Your task to perform on an android device: toggle airplane mode Image 0: 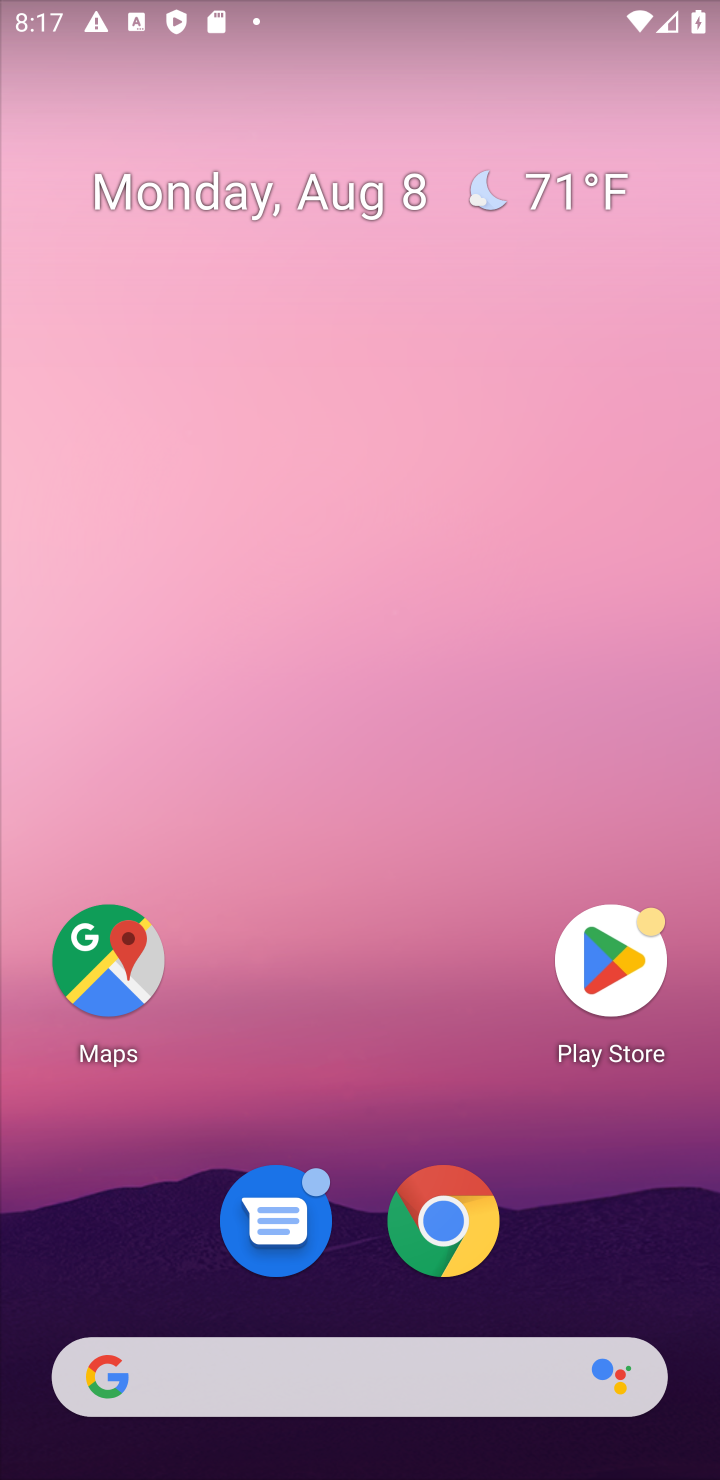
Step 0: click (95, 336)
Your task to perform on an android device: toggle airplane mode Image 1: 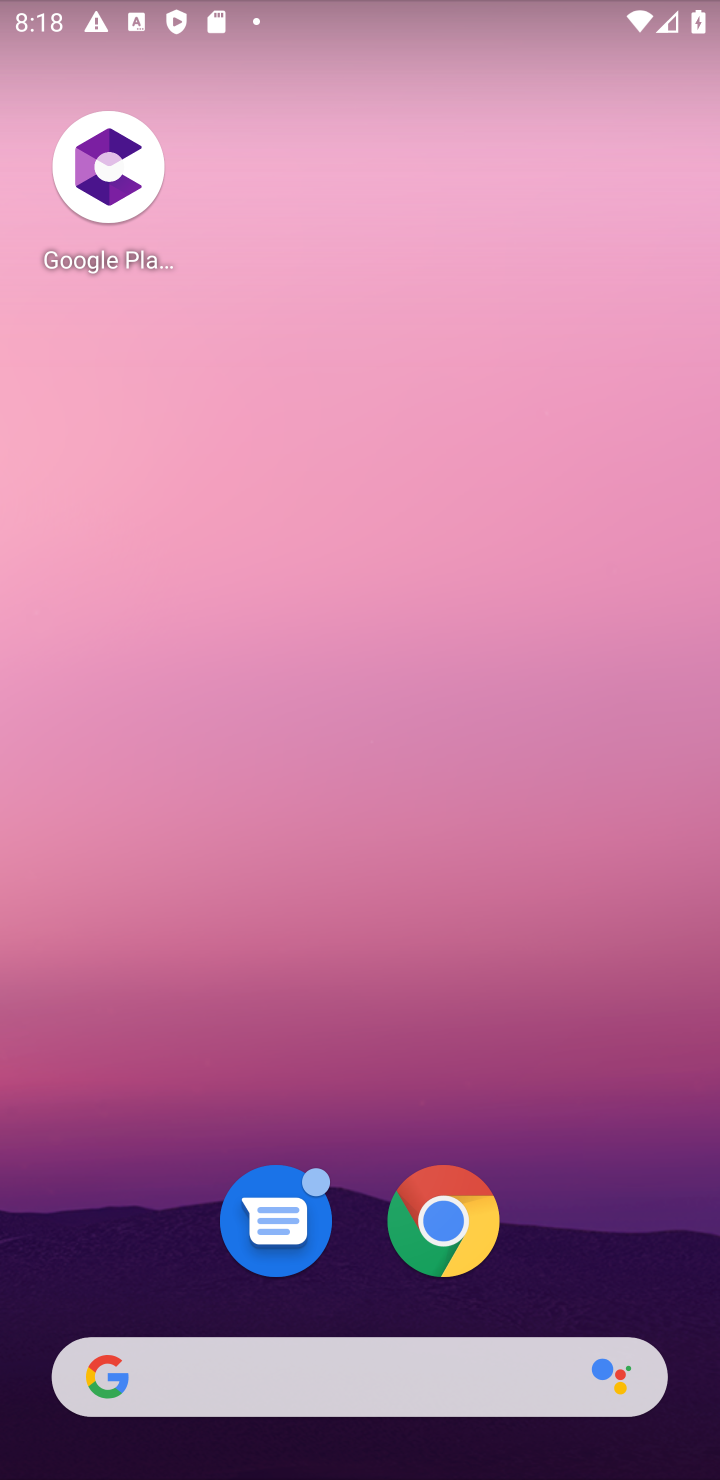
Step 1: click (195, 1125)
Your task to perform on an android device: toggle airplane mode Image 2: 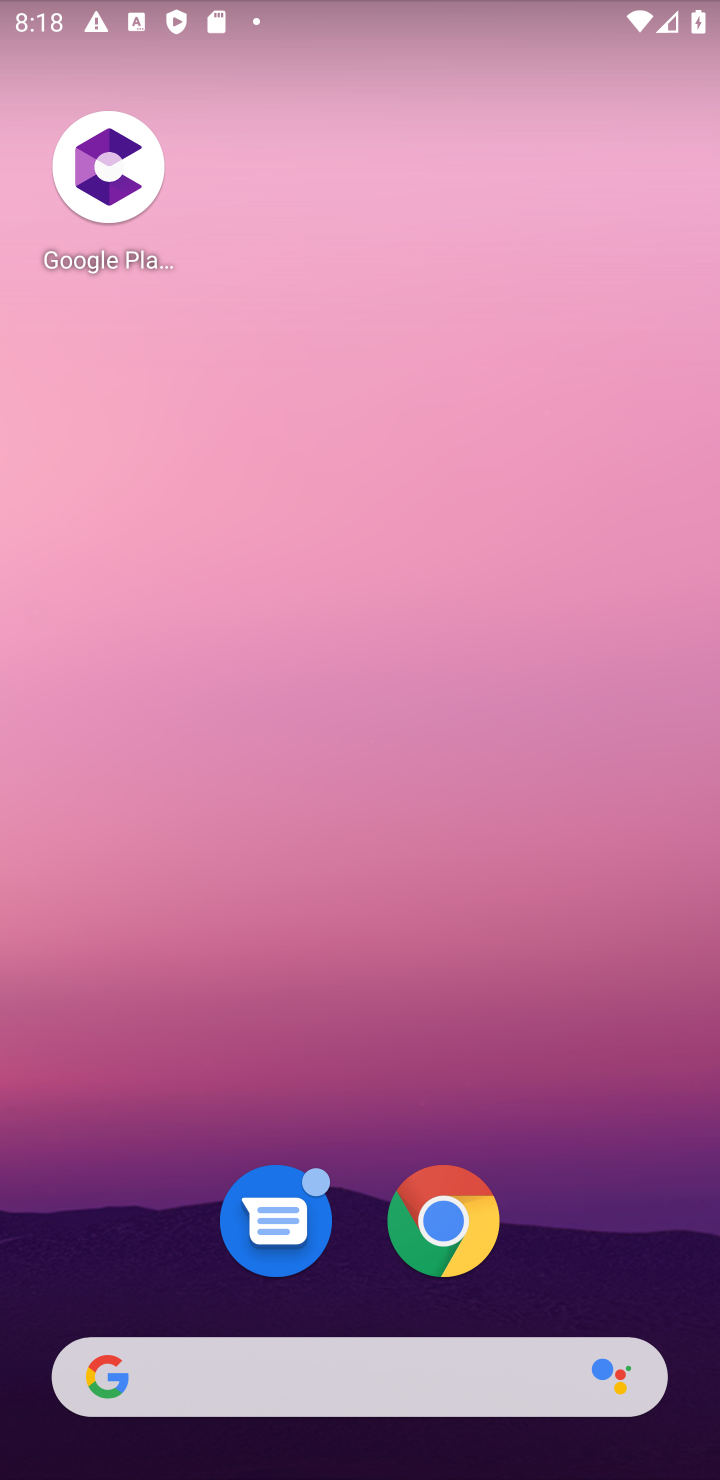
Step 2: drag from (348, 22) to (349, 434)
Your task to perform on an android device: toggle airplane mode Image 3: 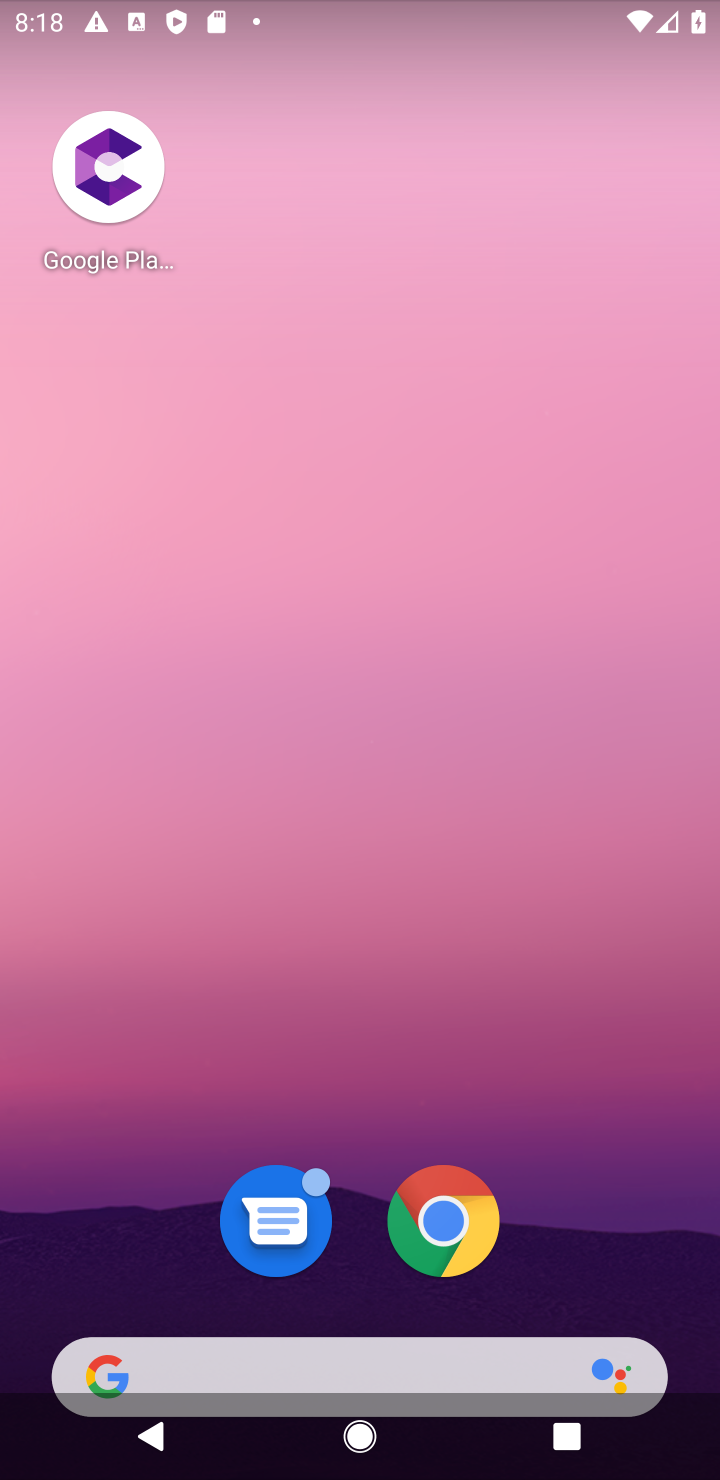
Step 3: drag from (458, 4) to (550, 1252)
Your task to perform on an android device: toggle airplane mode Image 4: 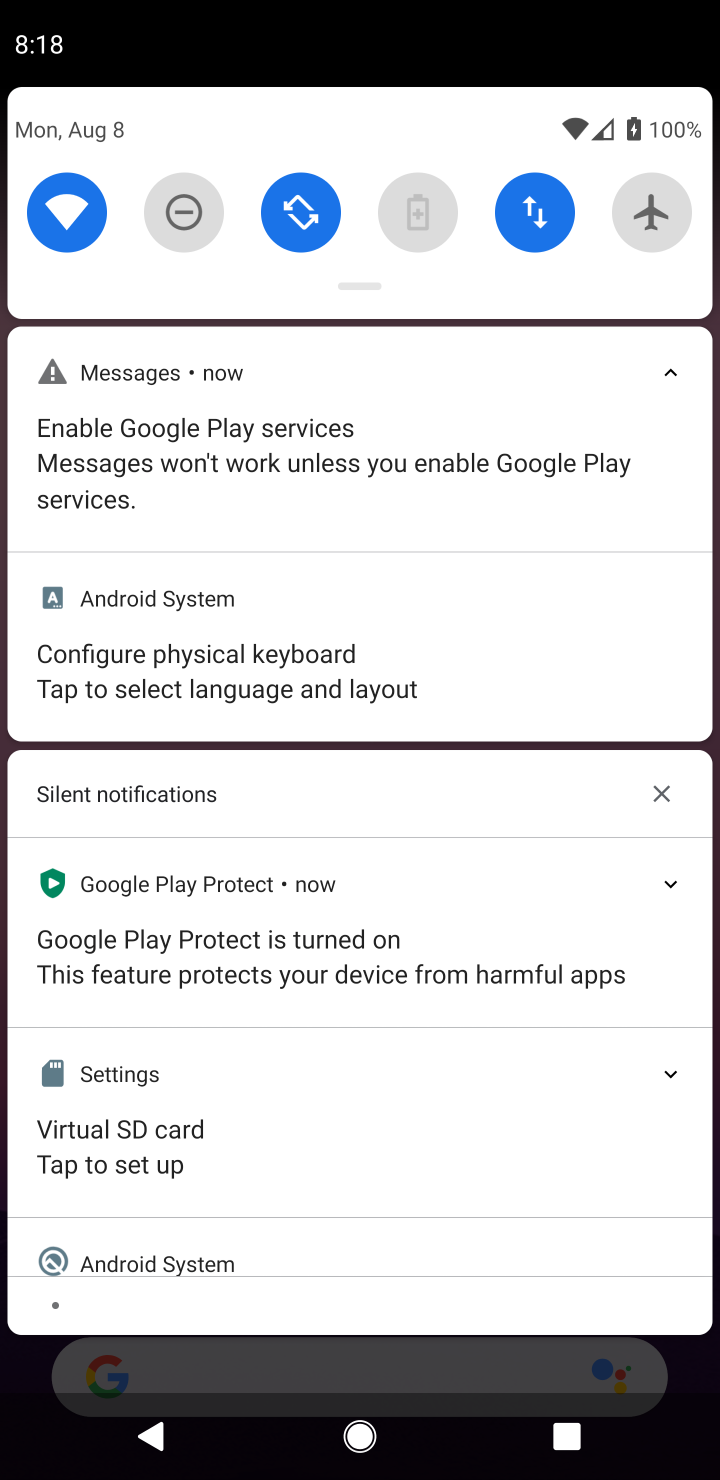
Step 4: click (678, 201)
Your task to perform on an android device: toggle airplane mode Image 5: 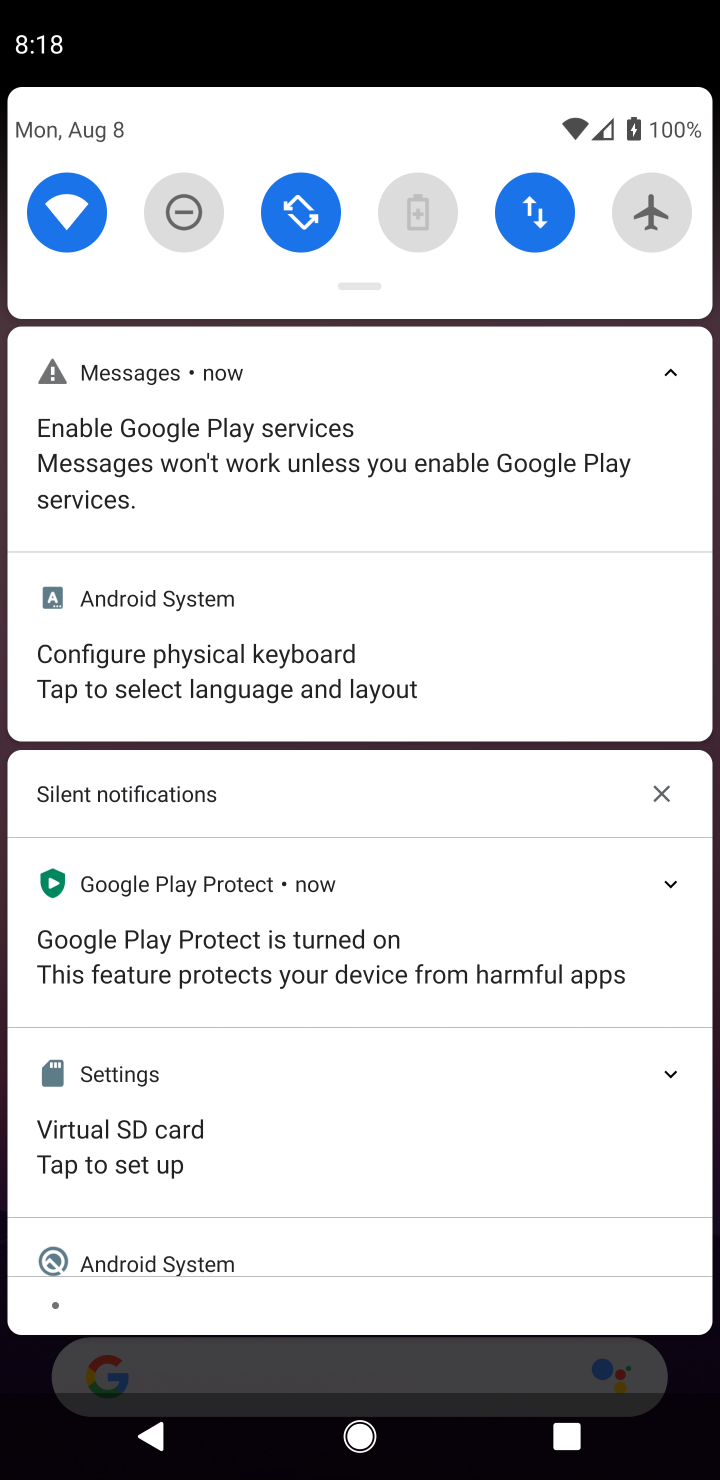
Step 5: click (678, 201)
Your task to perform on an android device: toggle airplane mode Image 6: 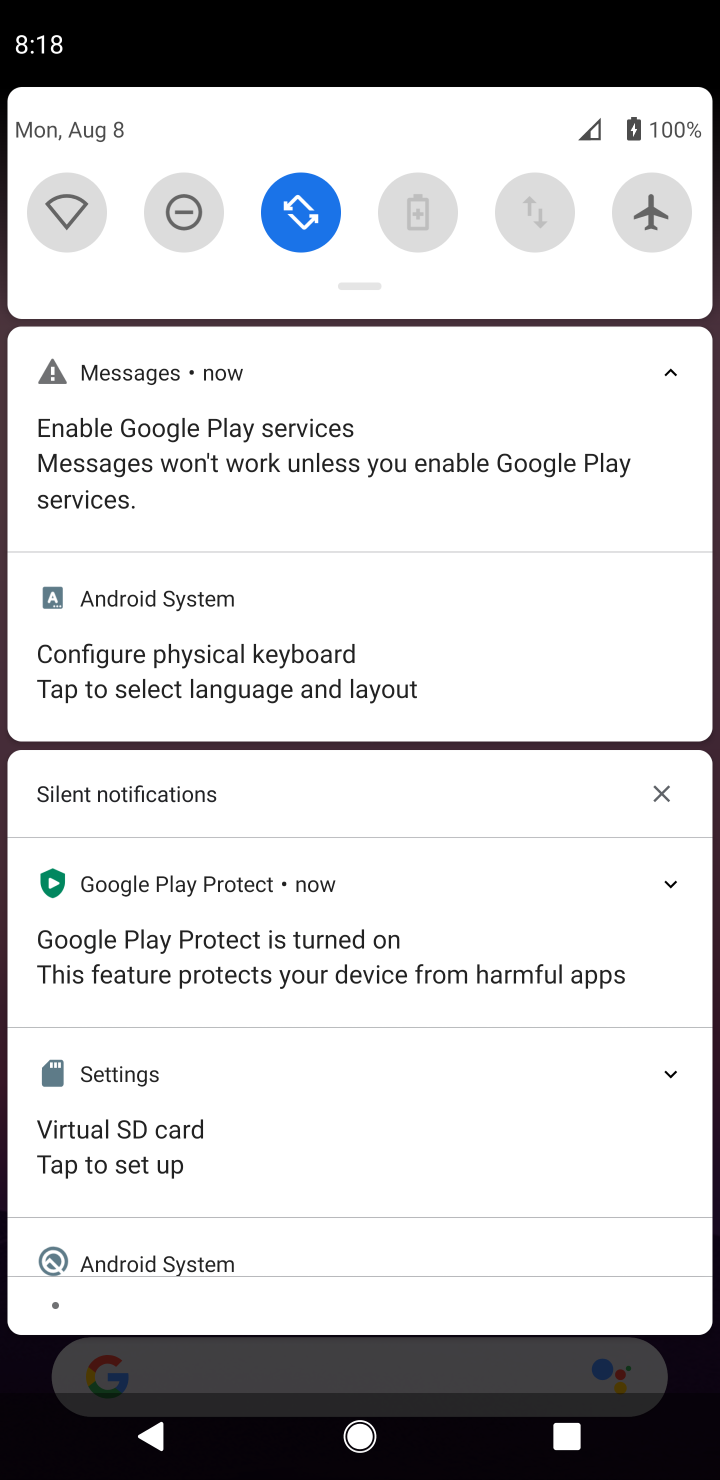
Step 6: click (678, 201)
Your task to perform on an android device: toggle airplane mode Image 7: 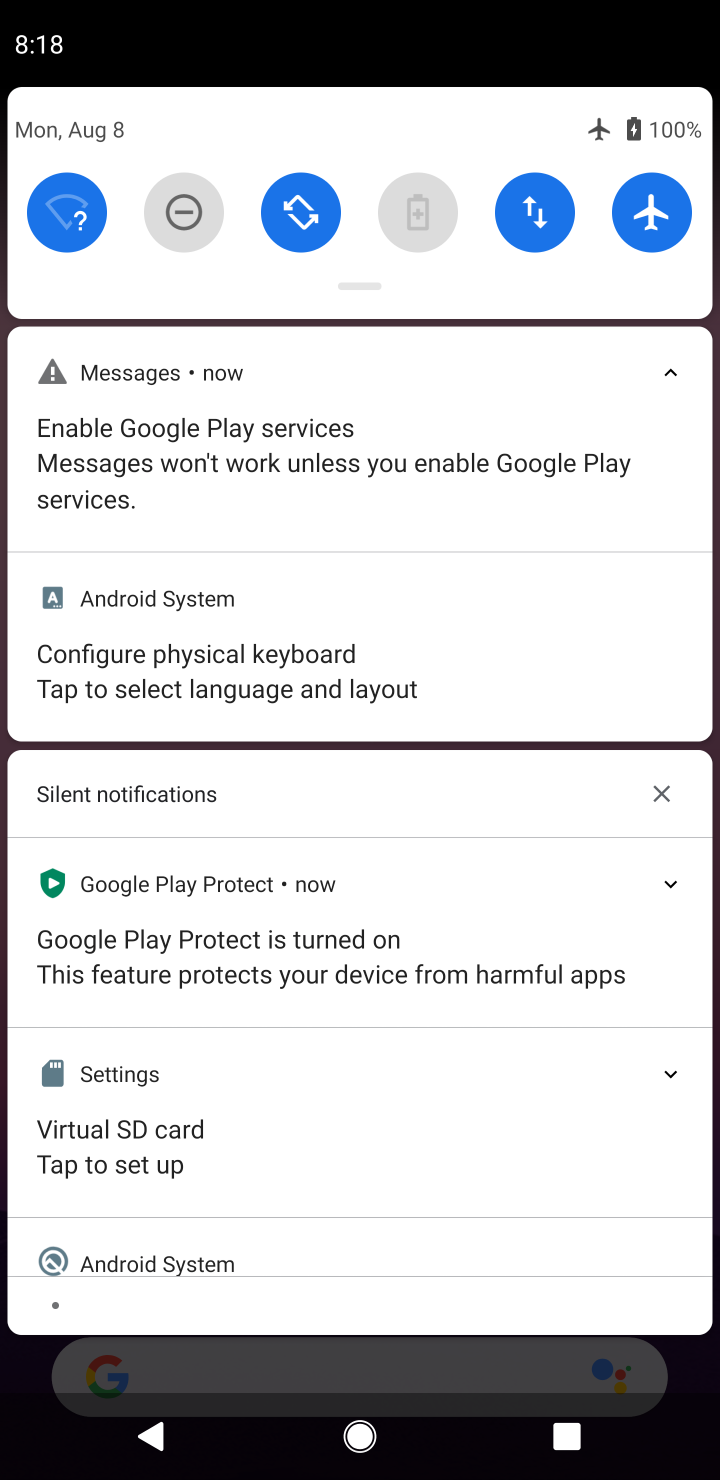
Step 7: task complete